Your task to perform on an android device: open wifi settings Image 0: 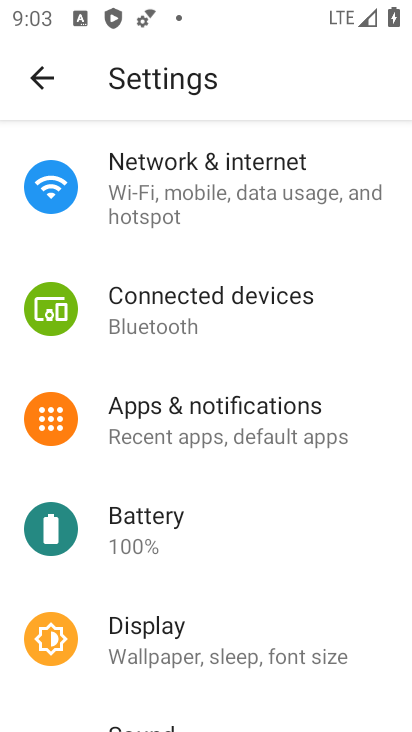
Step 0: click (264, 165)
Your task to perform on an android device: open wifi settings Image 1: 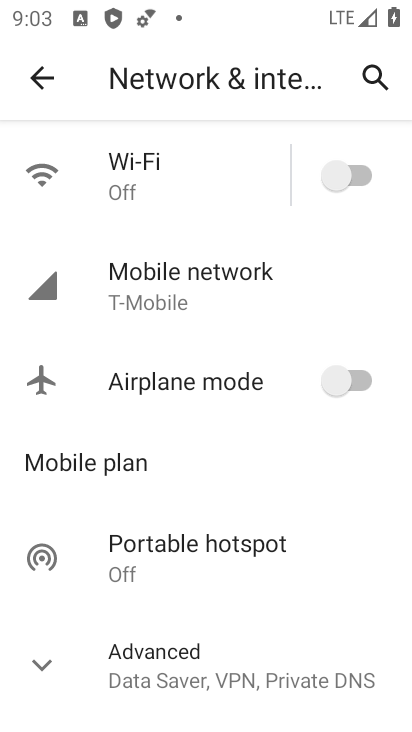
Step 1: click (233, 185)
Your task to perform on an android device: open wifi settings Image 2: 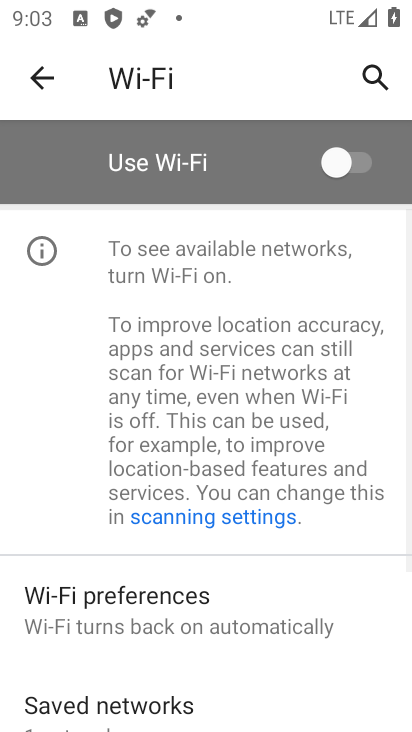
Step 2: task complete